Your task to perform on an android device: remove spam from my inbox in the gmail app Image 0: 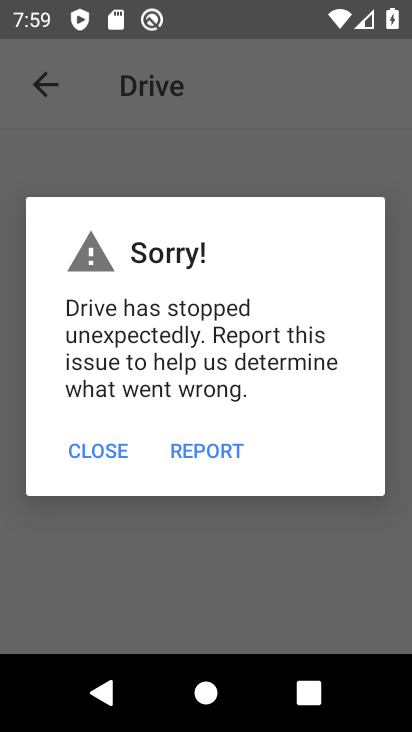
Step 0: press home button
Your task to perform on an android device: remove spam from my inbox in the gmail app Image 1: 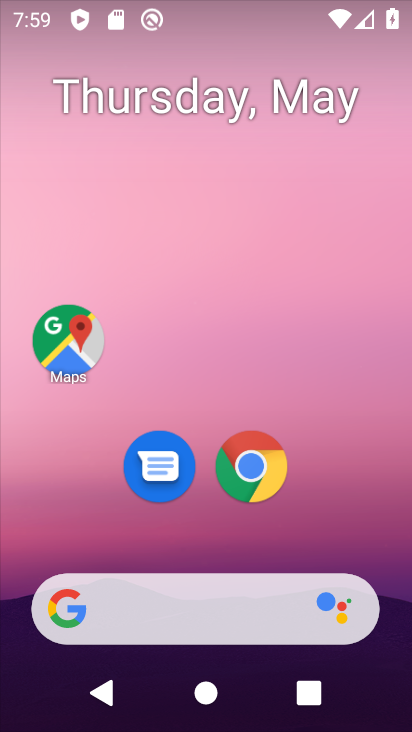
Step 1: drag from (163, 403) to (300, 16)
Your task to perform on an android device: remove spam from my inbox in the gmail app Image 2: 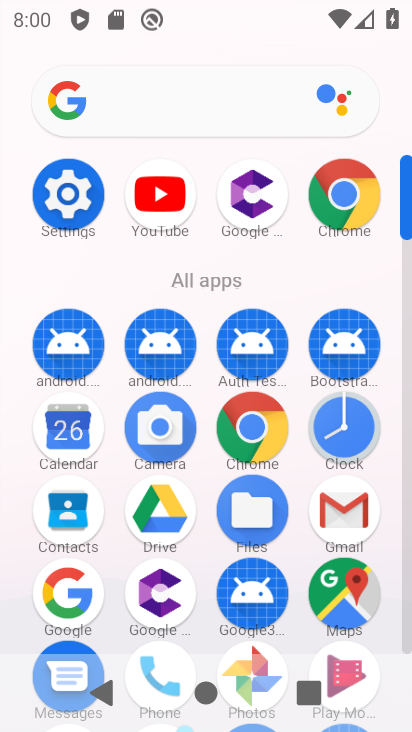
Step 2: click (348, 520)
Your task to perform on an android device: remove spam from my inbox in the gmail app Image 3: 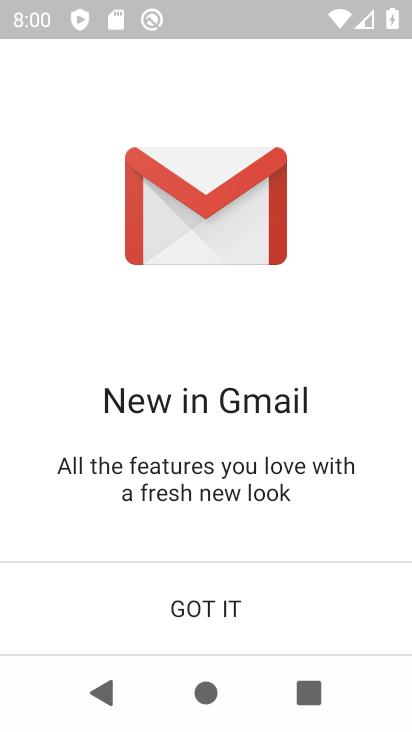
Step 3: click (246, 590)
Your task to perform on an android device: remove spam from my inbox in the gmail app Image 4: 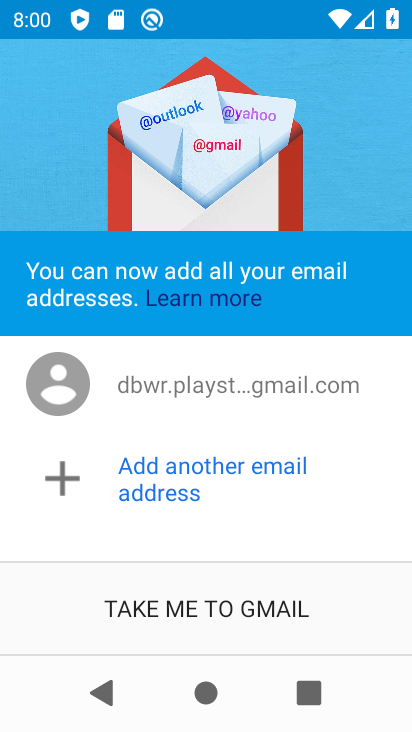
Step 4: click (218, 585)
Your task to perform on an android device: remove spam from my inbox in the gmail app Image 5: 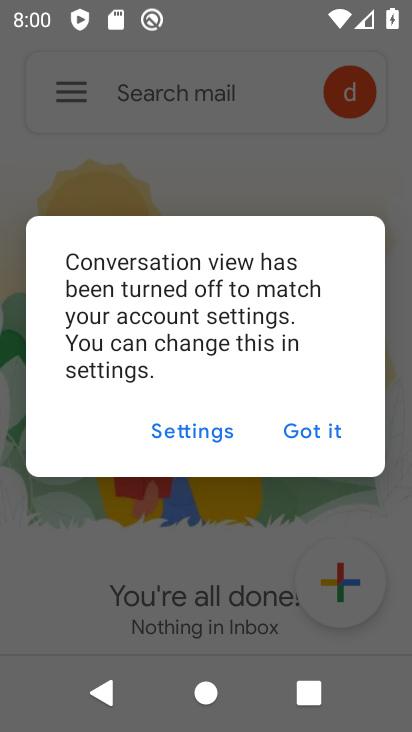
Step 5: click (291, 429)
Your task to perform on an android device: remove spam from my inbox in the gmail app Image 6: 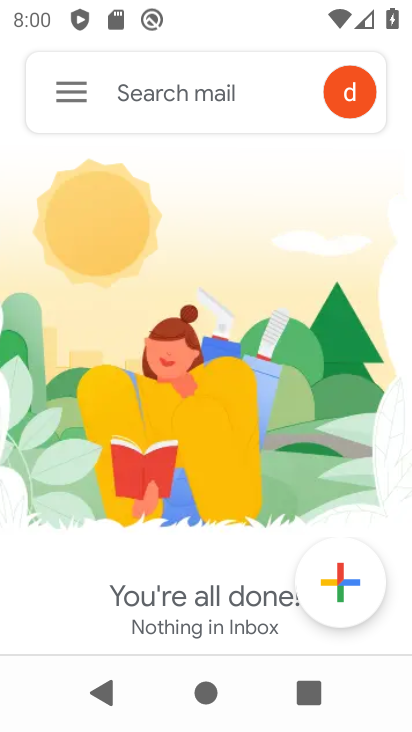
Step 6: click (59, 81)
Your task to perform on an android device: remove spam from my inbox in the gmail app Image 7: 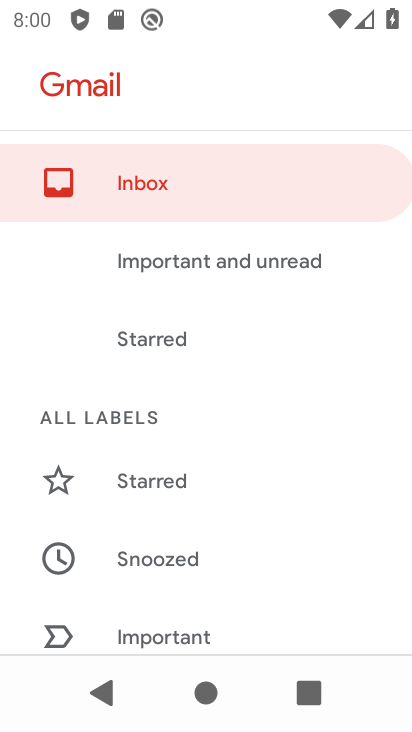
Step 7: drag from (266, 451) to (225, 167)
Your task to perform on an android device: remove spam from my inbox in the gmail app Image 8: 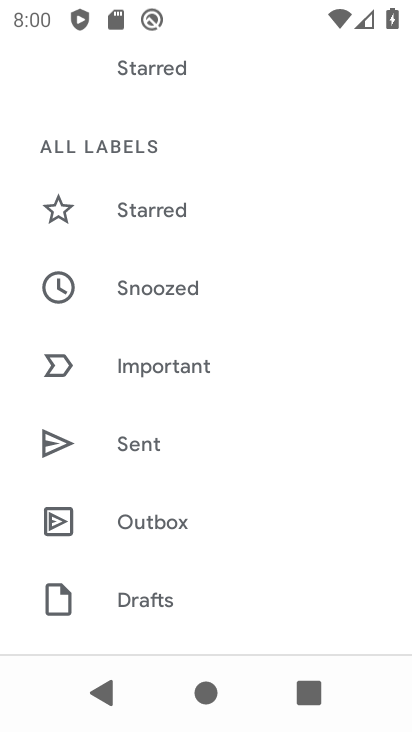
Step 8: drag from (182, 532) to (118, 217)
Your task to perform on an android device: remove spam from my inbox in the gmail app Image 9: 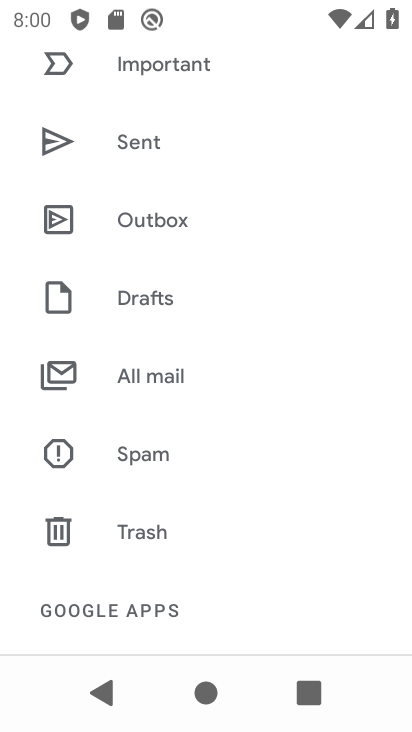
Step 9: click (152, 454)
Your task to perform on an android device: remove spam from my inbox in the gmail app Image 10: 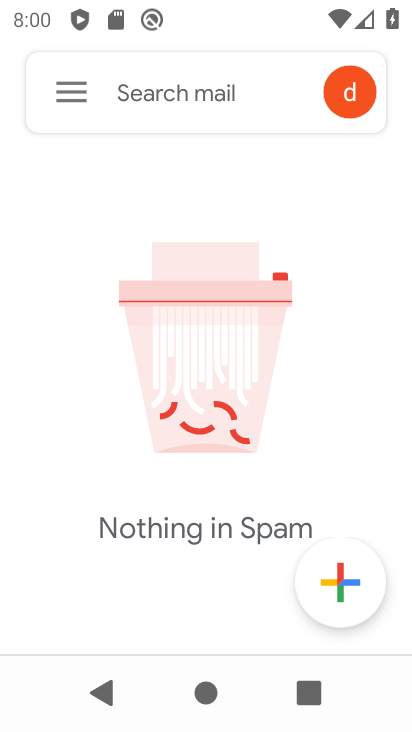
Step 10: task complete